Your task to perform on an android device: open device folders in google photos Image 0: 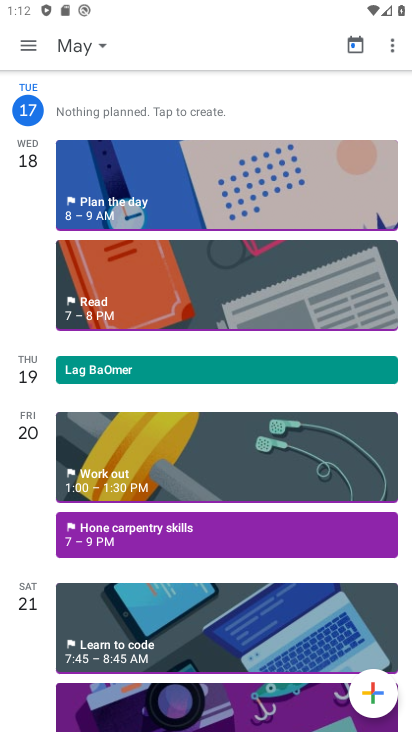
Step 0: press back button
Your task to perform on an android device: open device folders in google photos Image 1: 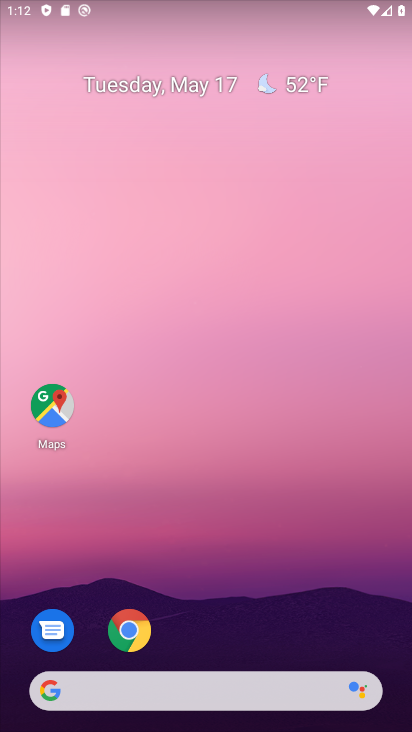
Step 1: drag from (215, 608) to (304, 111)
Your task to perform on an android device: open device folders in google photos Image 2: 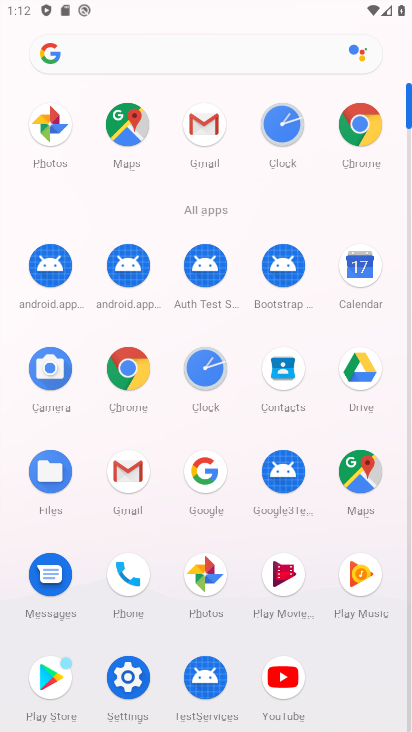
Step 2: click (203, 583)
Your task to perform on an android device: open device folders in google photos Image 3: 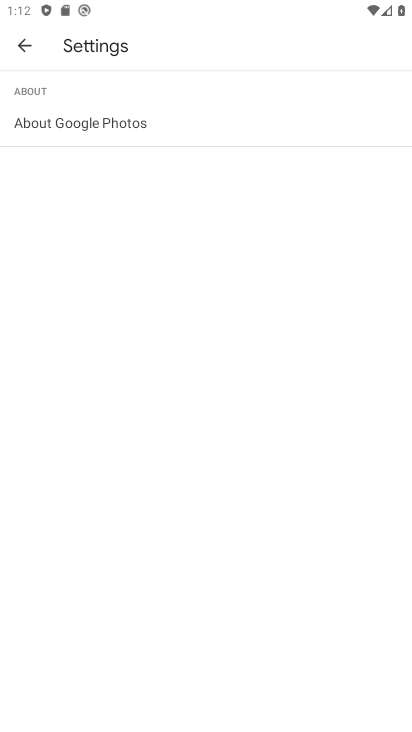
Step 3: task complete